Your task to perform on an android device: refresh tabs in the chrome app Image 0: 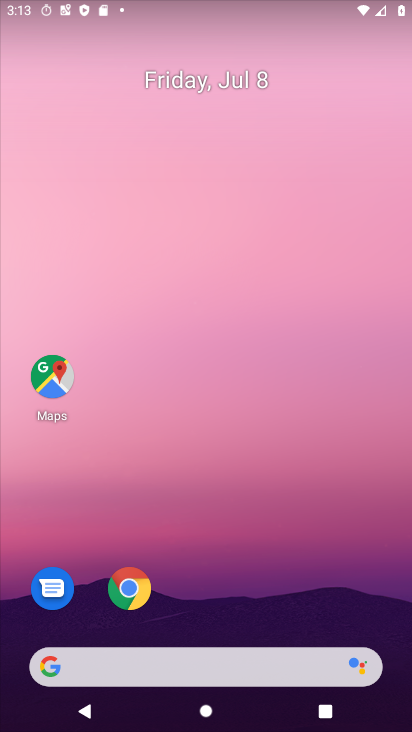
Step 0: press home button
Your task to perform on an android device: refresh tabs in the chrome app Image 1: 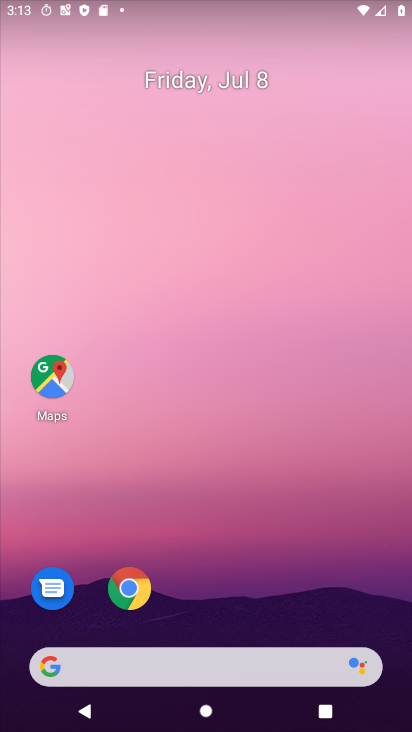
Step 1: drag from (281, 604) to (402, 70)
Your task to perform on an android device: refresh tabs in the chrome app Image 2: 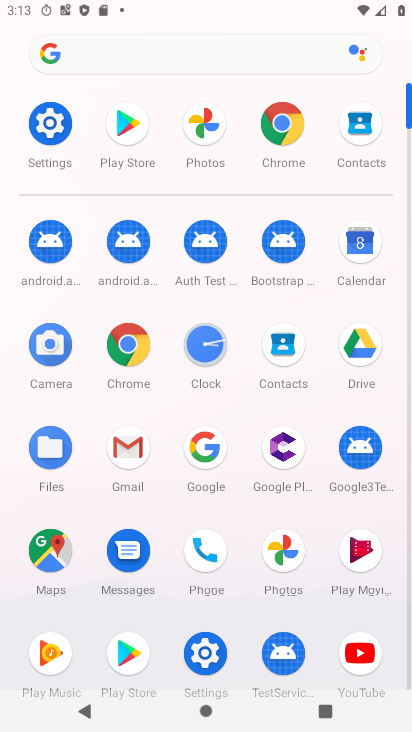
Step 2: click (284, 119)
Your task to perform on an android device: refresh tabs in the chrome app Image 3: 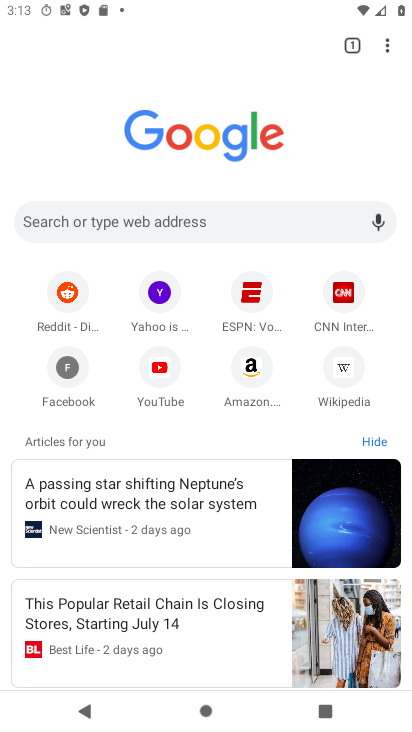
Step 3: click (385, 46)
Your task to perform on an android device: refresh tabs in the chrome app Image 4: 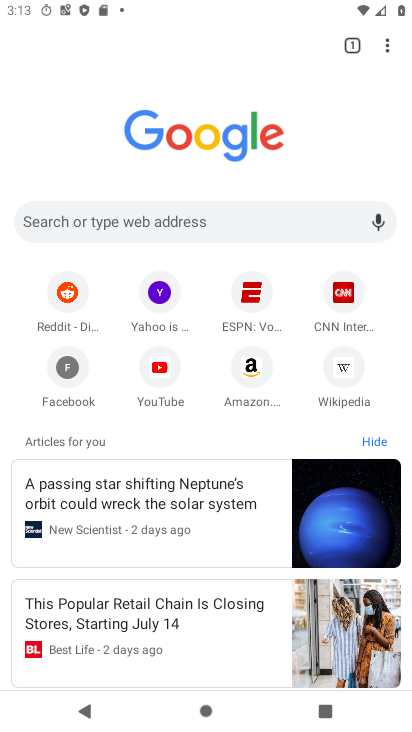
Step 4: task complete